Your task to perform on an android device: Go to Amazon Image 0: 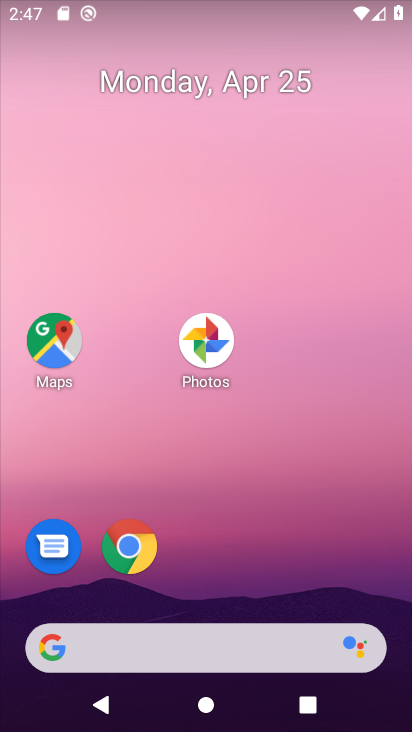
Step 0: drag from (252, 544) to (281, 200)
Your task to perform on an android device: Go to Amazon Image 1: 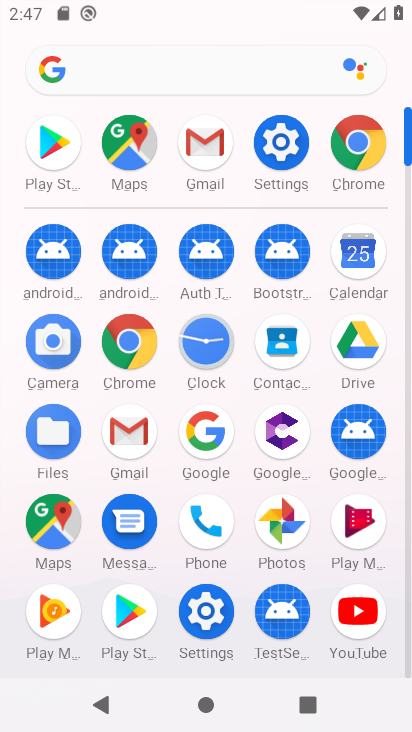
Step 1: click (376, 142)
Your task to perform on an android device: Go to Amazon Image 2: 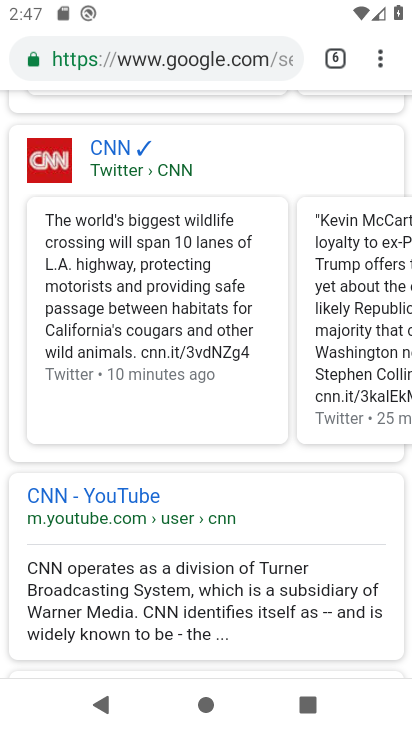
Step 2: click (358, 60)
Your task to perform on an android device: Go to Amazon Image 3: 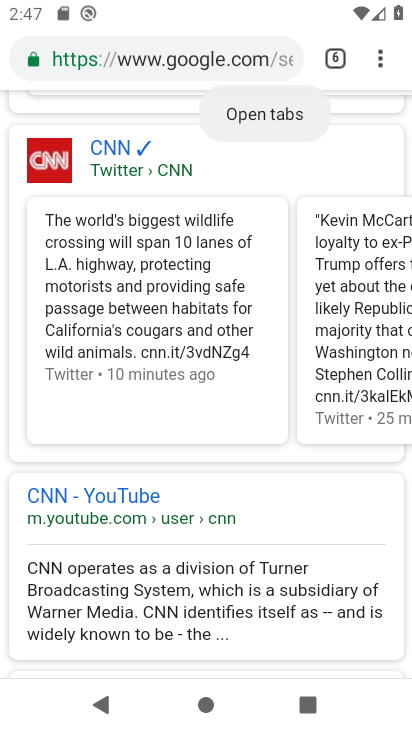
Step 3: click (368, 73)
Your task to perform on an android device: Go to Amazon Image 4: 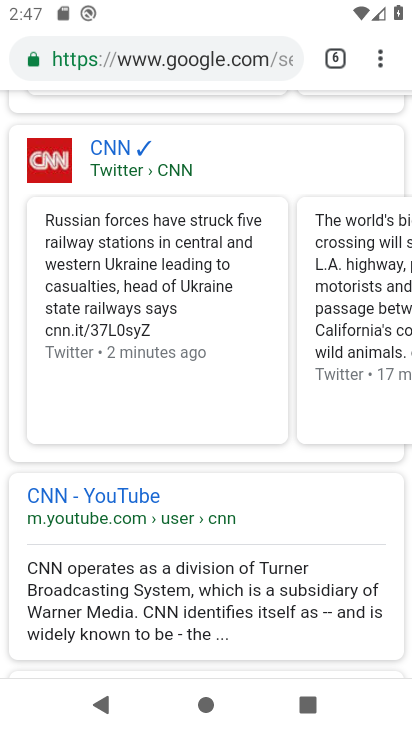
Step 4: click (351, 68)
Your task to perform on an android device: Go to Amazon Image 5: 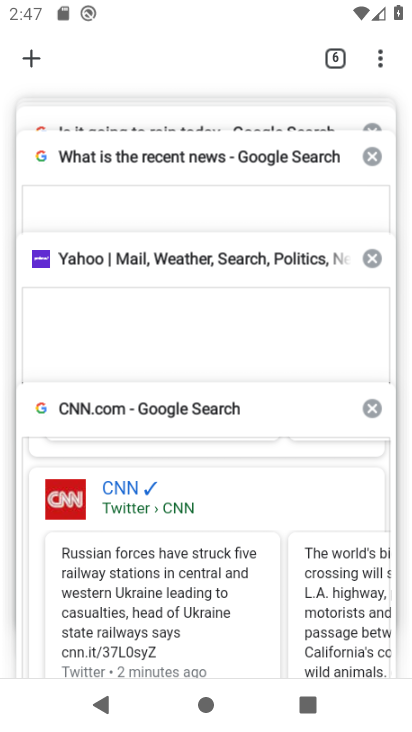
Step 5: click (26, 69)
Your task to perform on an android device: Go to Amazon Image 6: 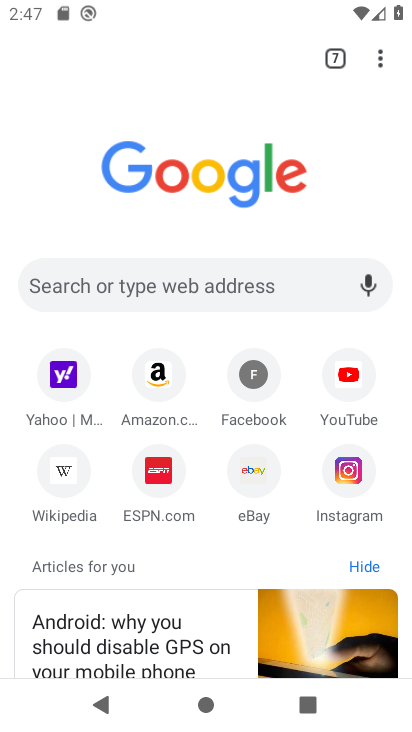
Step 6: click (144, 372)
Your task to perform on an android device: Go to Amazon Image 7: 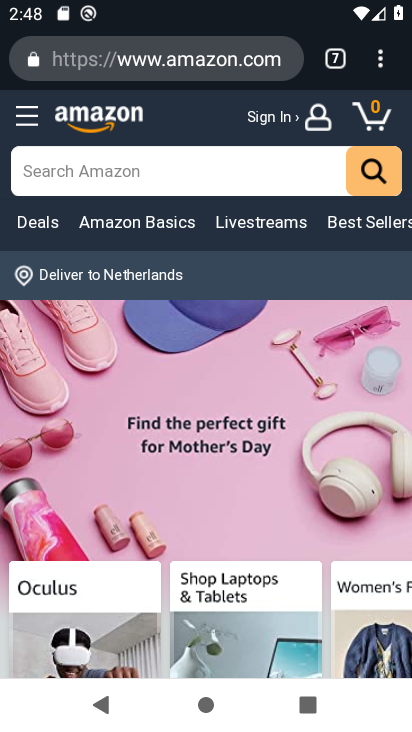
Step 7: task complete